Your task to perform on an android device: check the backup settings in the google photos Image 0: 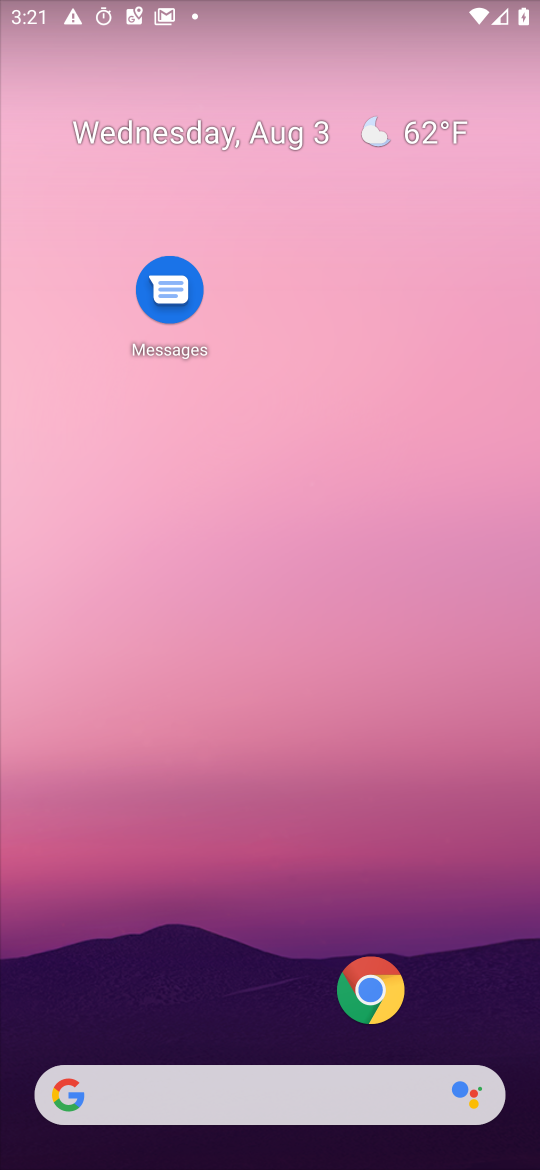
Step 0: drag from (280, 1054) to (299, 287)
Your task to perform on an android device: check the backup settings in the google photos Image 1: 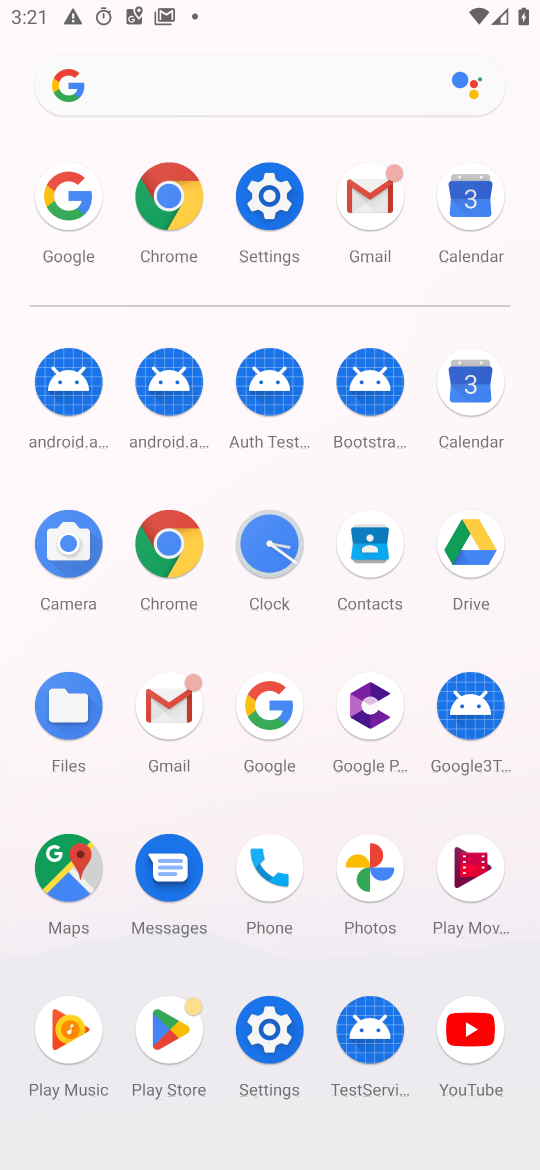
Step 1: click (363, 870)
Your task to perform on an android device: check the backup settings in the google photos Image 2: 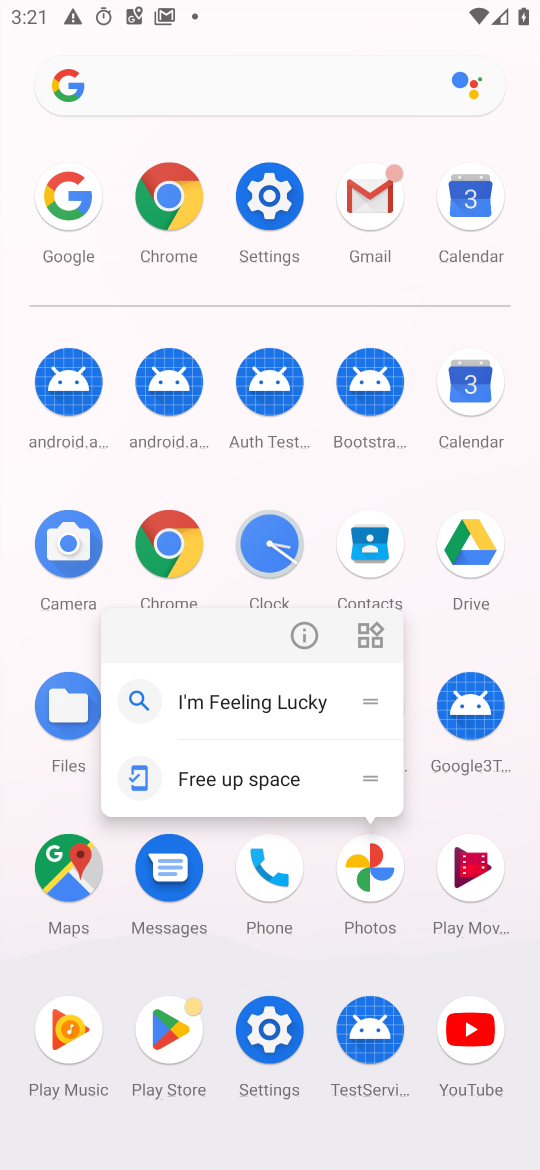
Step 2: click (372, 857)
Your task to perform on an android device: check the backup settings in the google photos Image 3: 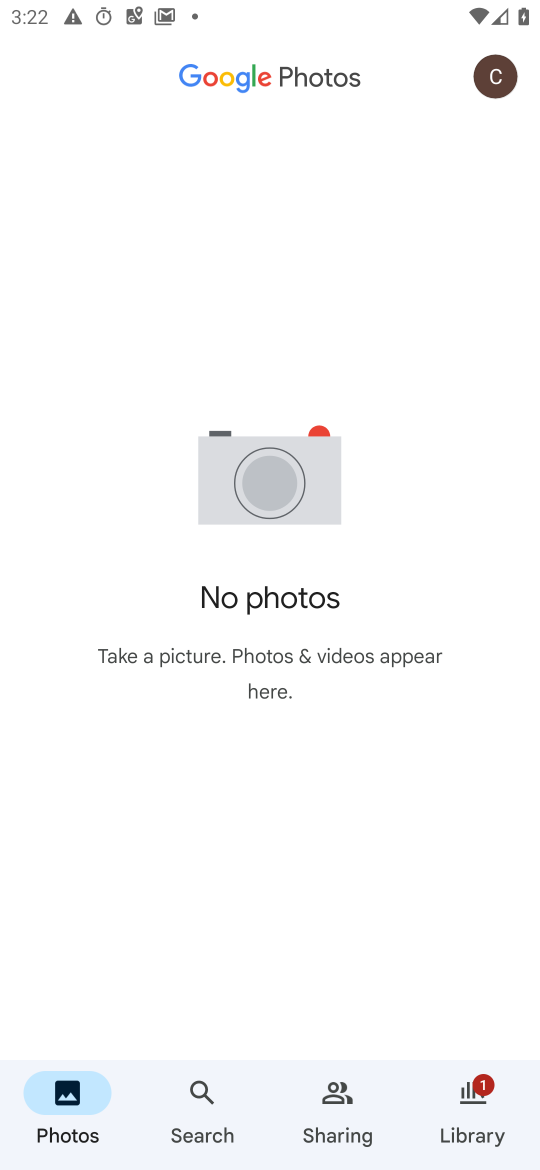
Step 3: click (497, 68)
Your task to perform on an android device: check the backup settings in the google photos Image 4: 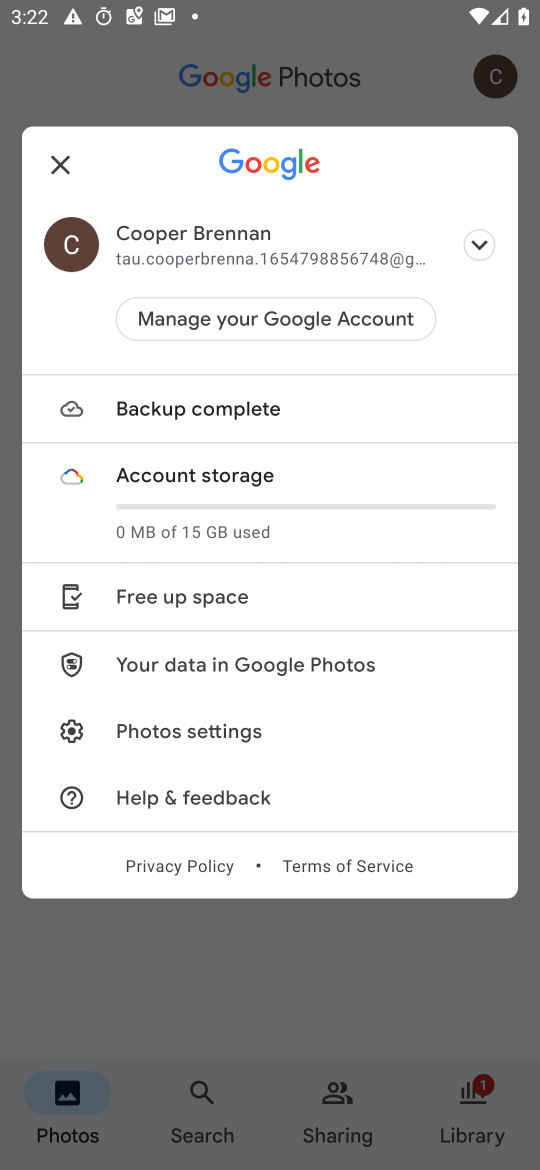
Step 4: click (186, 720)
Your task to perform on an android device: check the backup settings in the google photos Image 5: 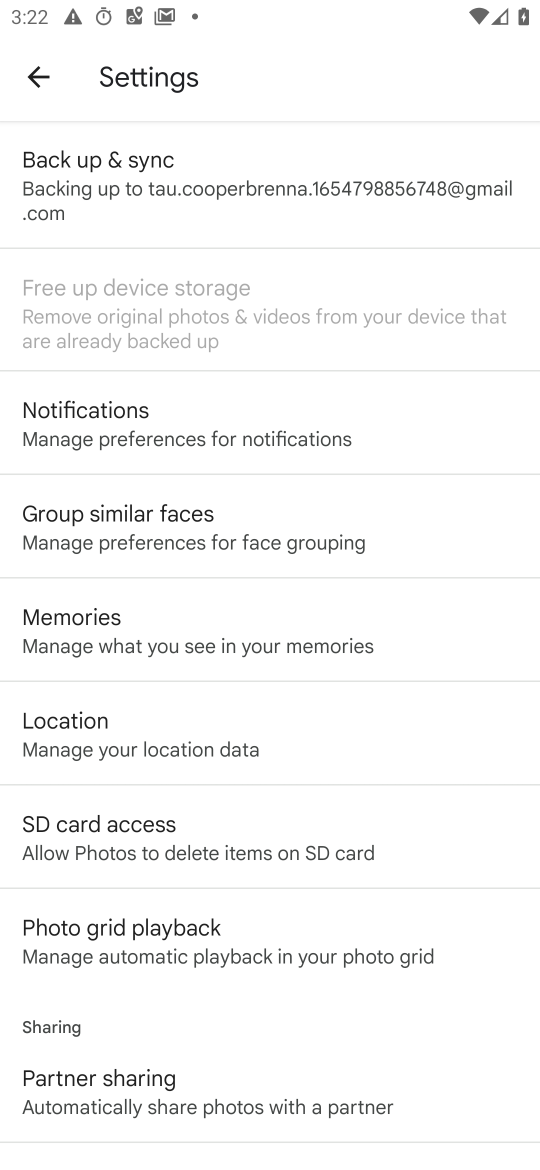
Step 5: click (109, 169)
Your task to perform on an android device: check the backup settings in the google photos Image 6: 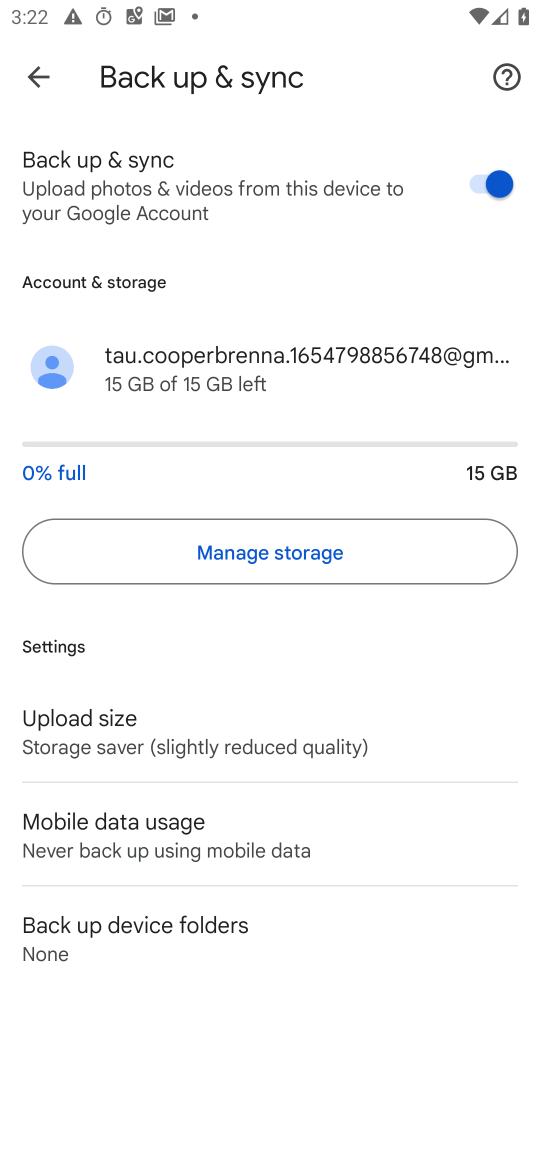
Step 6: task complete